Your task to perform on an android device: toggle notification dots Image 0: 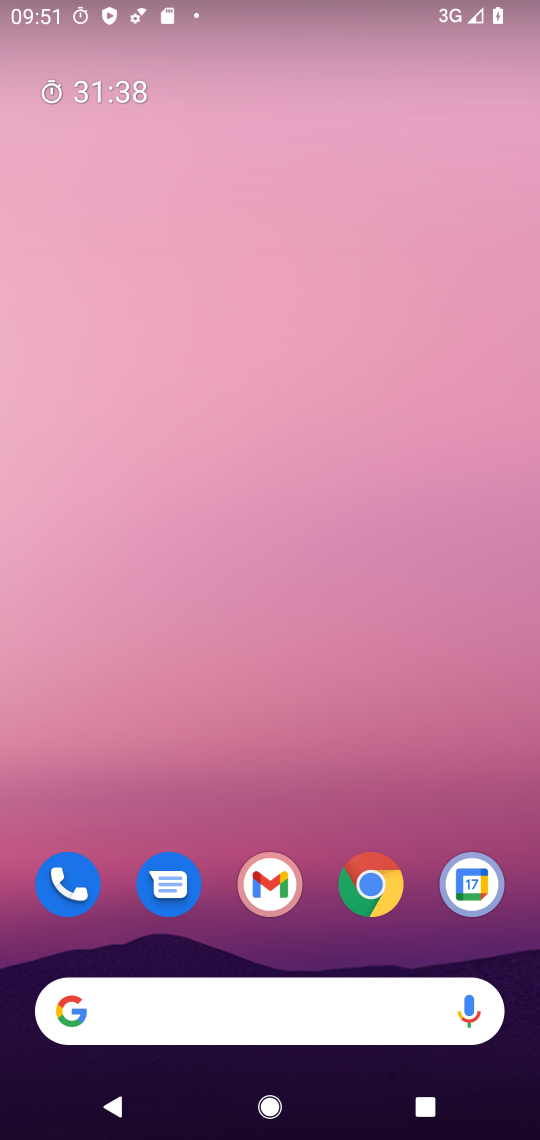
Step 0: drag from (259, 770) to (232, 152)
Your task to perform on an android device: toggle notification dots Image 1: 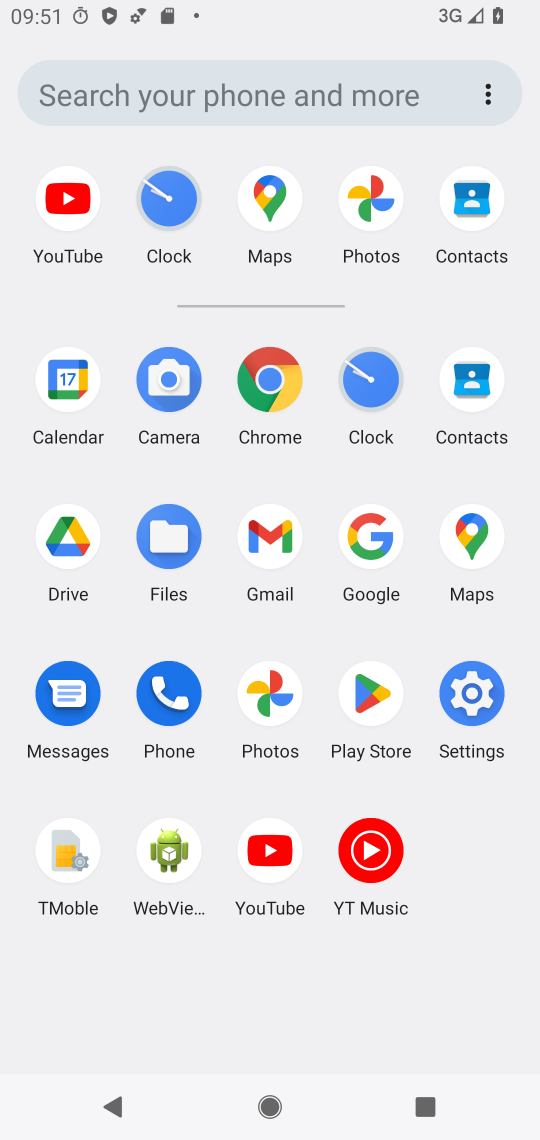
Step 1: click (459, 692)
Your task to perform on an android device: toggle notification dots Image 2: 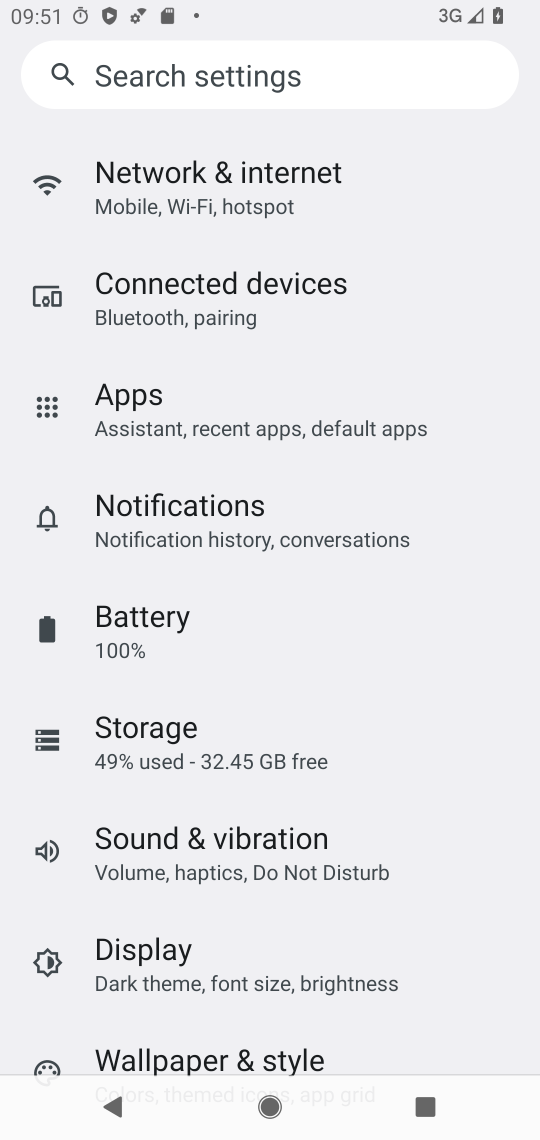
Step 2: click (202, 485)
Your task to perform on an android device: toggle notification dots Image 3: 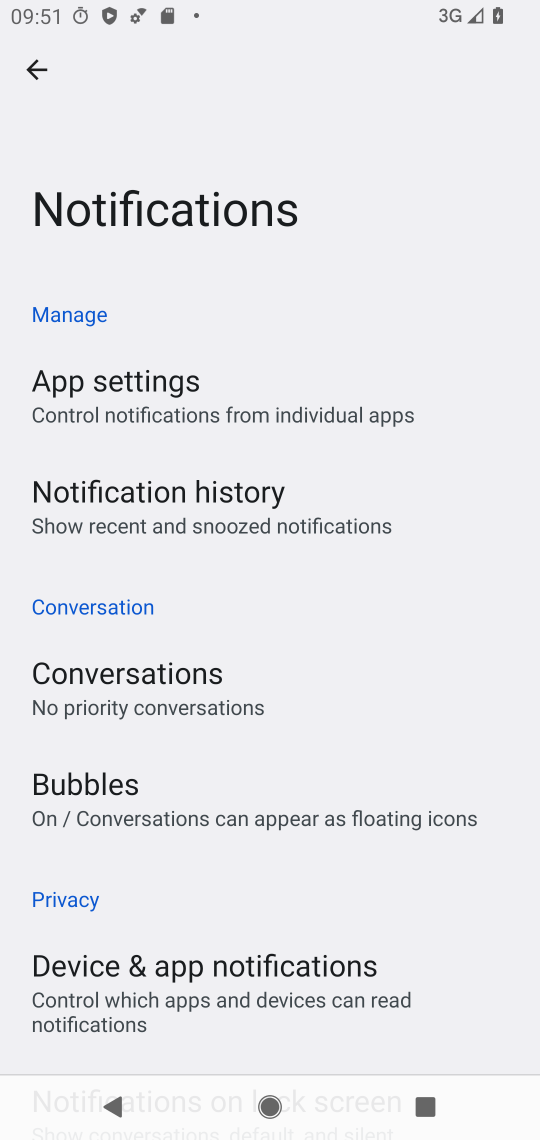
Step 3: drag from (246, 911) to (209, 361)
Your task to perform on an android device: toggle notification dots Image 4: 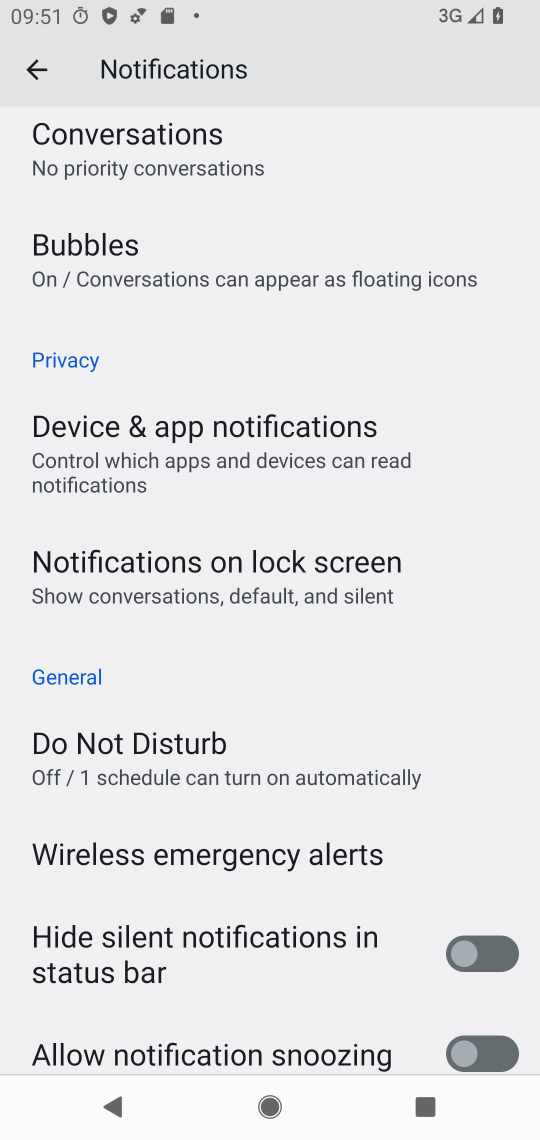
Step 4: drag from (264, 943) to (235, 483)
Your task to perform on an android device: toggle notification dots Image 5: 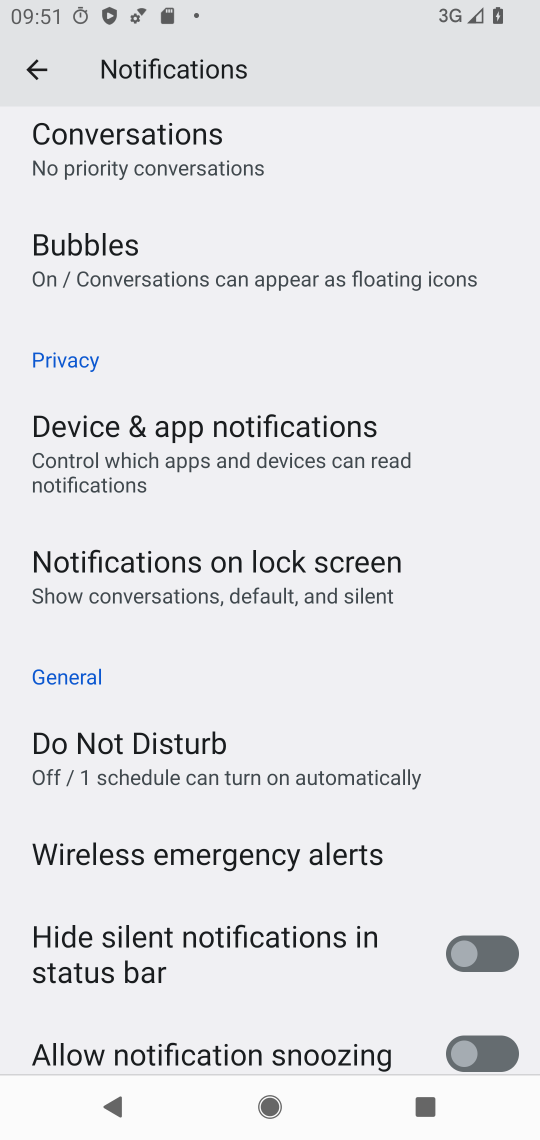
Step 5: drag from (341, 906) to (298, 304)
Your task to perform on an android device: toggle notification dots Image 6: 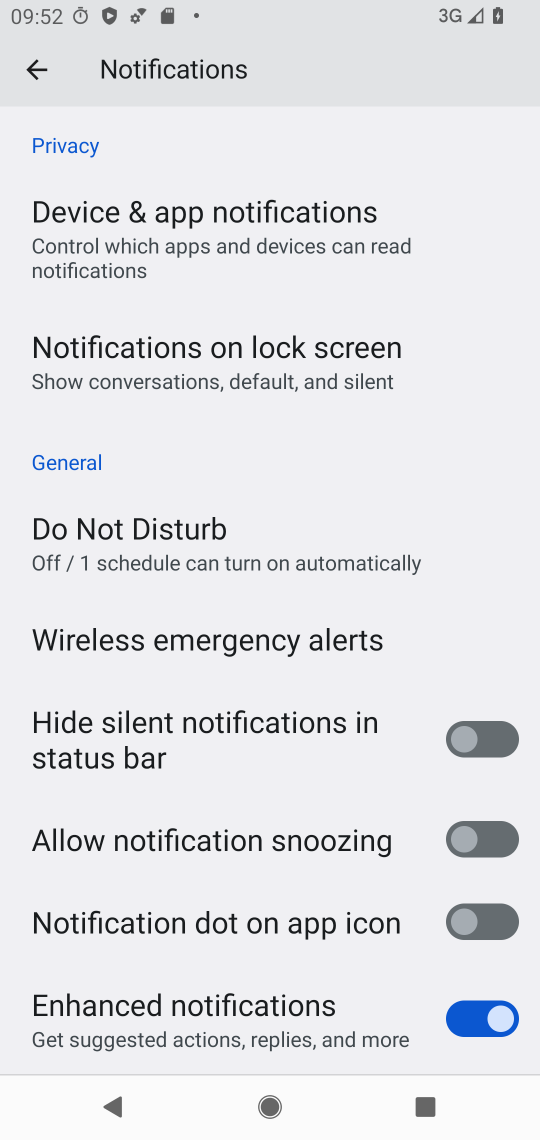
Step 6: click (487, 922)
Your task to perform on an android device: toggle notification dots Image 7: 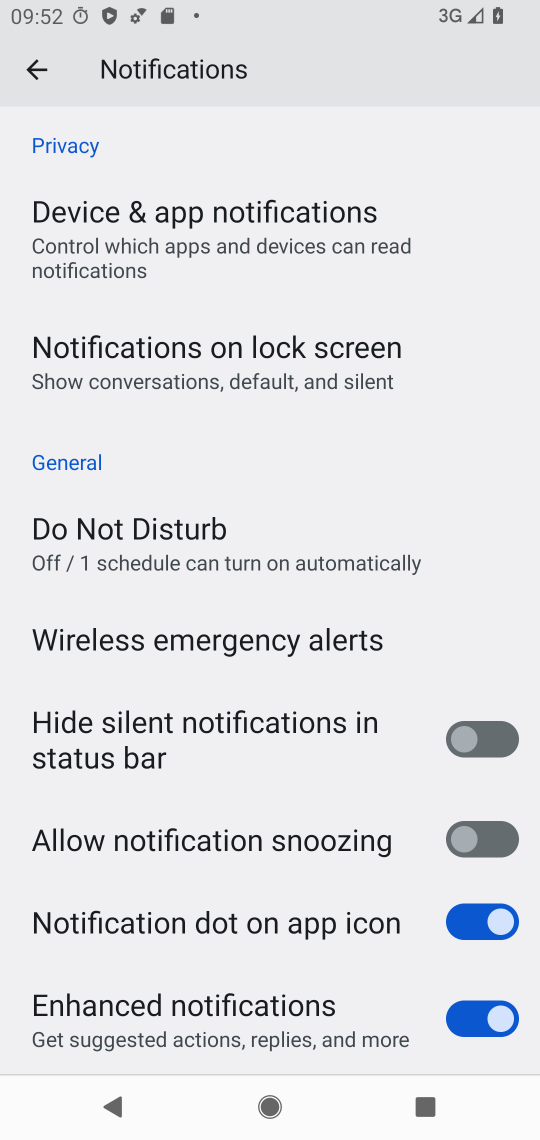
Step 7: task complete